Your task to perform on an android device: Go to notification settings Image 0: 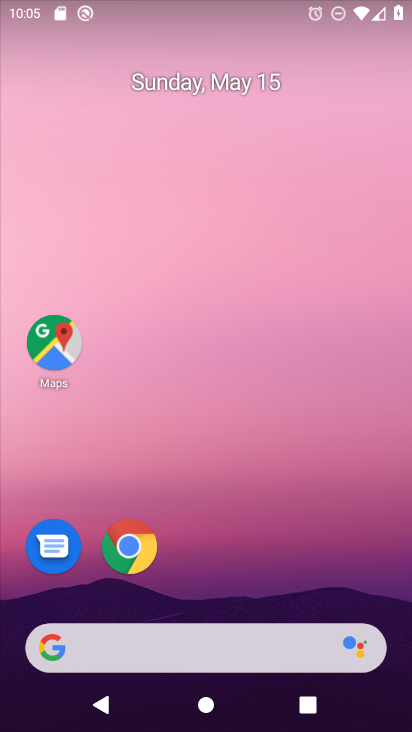
Step 0: drag from (284, 554) to (299, 152)
Your task to perform on an android device: Go to notification settings Image 1: 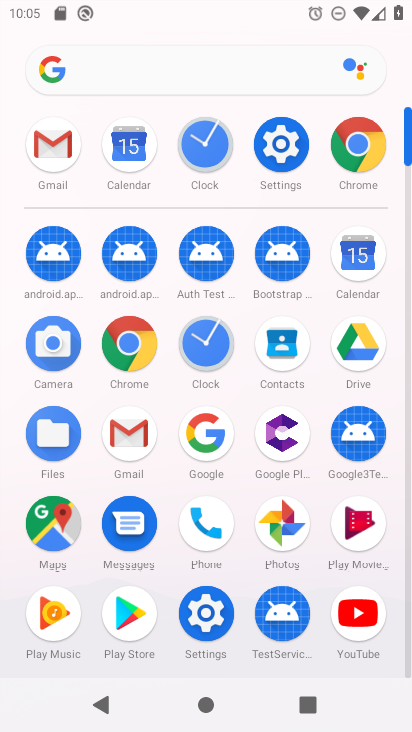
Step 1: click (292, 169)
Your task to perform on an android device: Go to notification settings Image 2: 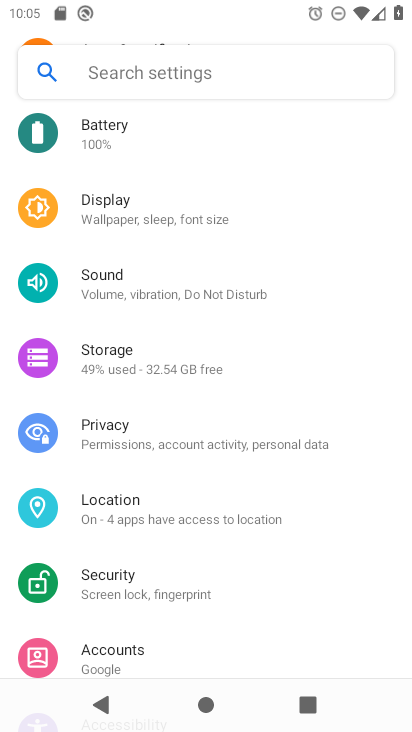
Step 2: drag from (292, 169) to (189, 594)
Your task to perform on an android device: Go to notification settings Image 3: 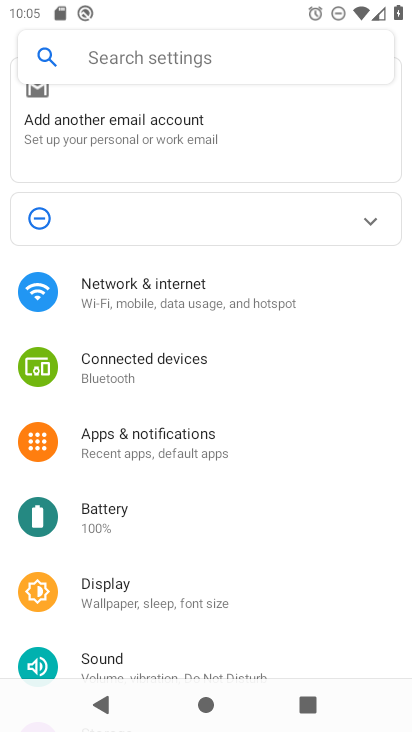
Step 3: click (188, 442)
Your task to perform on an android device: Go to notification settings Image 4: 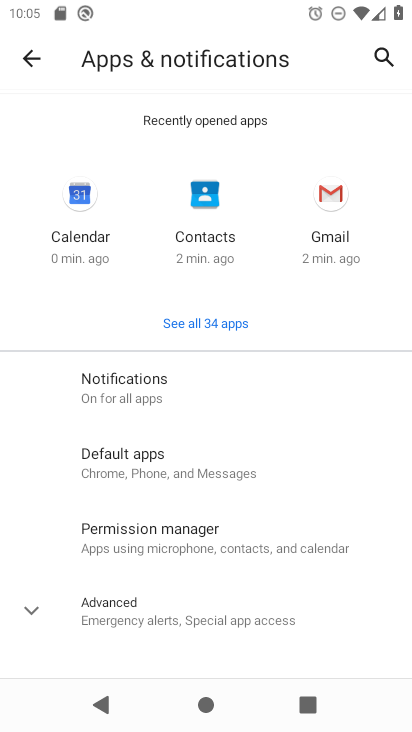
Step 4: click (142, 391)
Your task to perform on an android device: Go to notification settings Image 5: 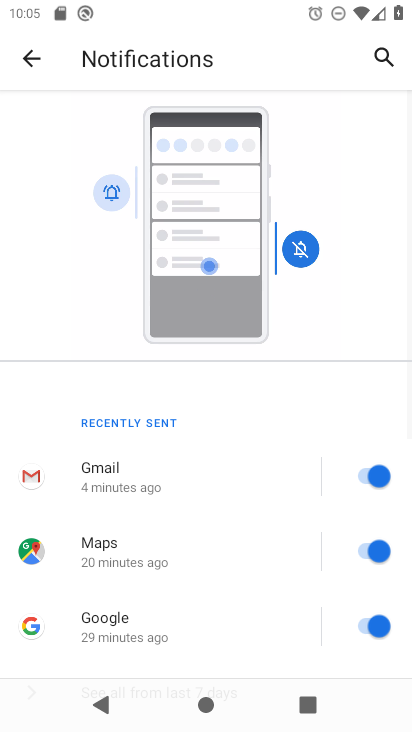
Step 5: task complete